Your task to perform on an android device: Clear the shopping cart on newegg. Search for "sony triple a" on newegg, select the first entry, and add it to the cart. Image 0: 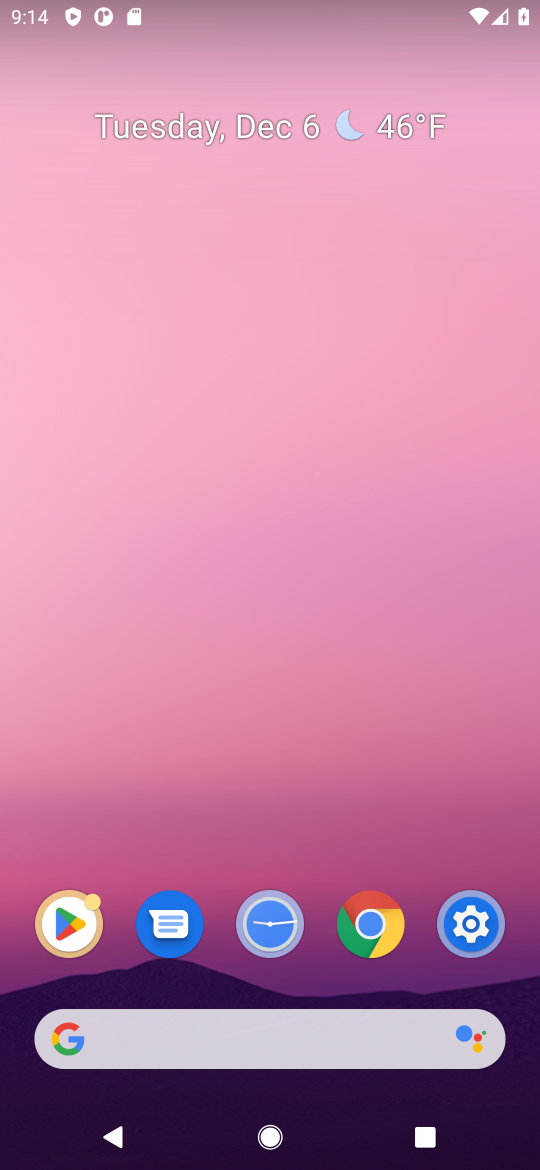
Step 0: click (223, 1042)
Your task to perform on an android device: Clear the shopping cart on newegg. Search for "sony triple a" on newegg, select the first entry, and add it to the cart. Image 1: 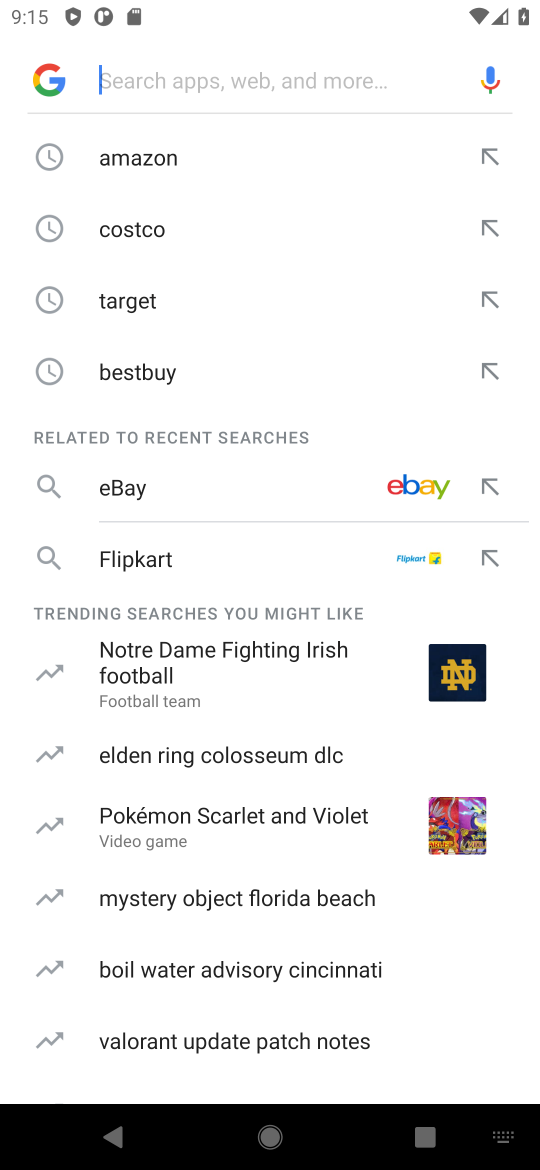
Step 1: type "newegg"
Your task to perform on an android device: Clear the shopping cart on newegg. Search for "sony triple a" on newegg, select the first entry, and add it to the cart. Image 2: 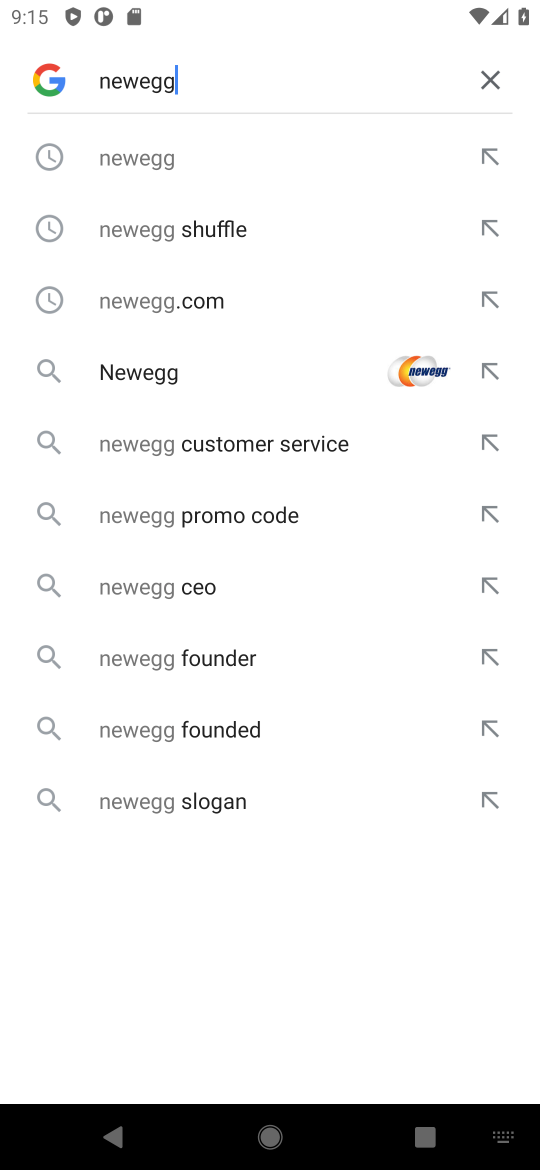
Step 2: click (191, 165)
Your task to perform on an android device: Clear the shopping cart on newegg. Search for "sony triple a" on newegg, select the first entry, and add it to the cart. Image 3: 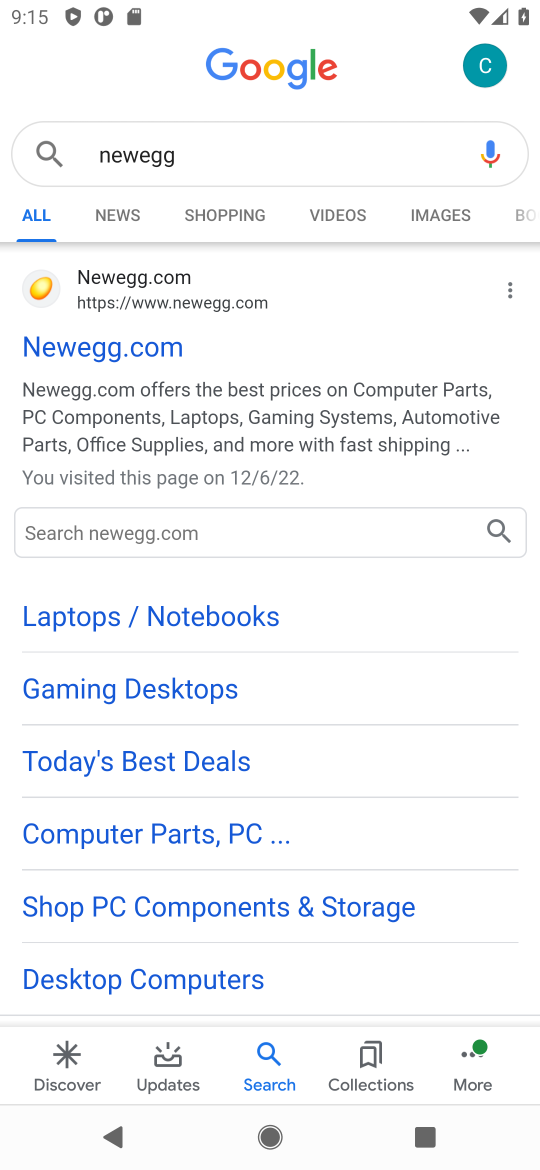
Step 3: click (64, 361)
Your task to perform on an android device: Clear the shopping cart on newegg. Search for "sony triple a" on newegg, select the first entry, and add it to the cart. Image 4: 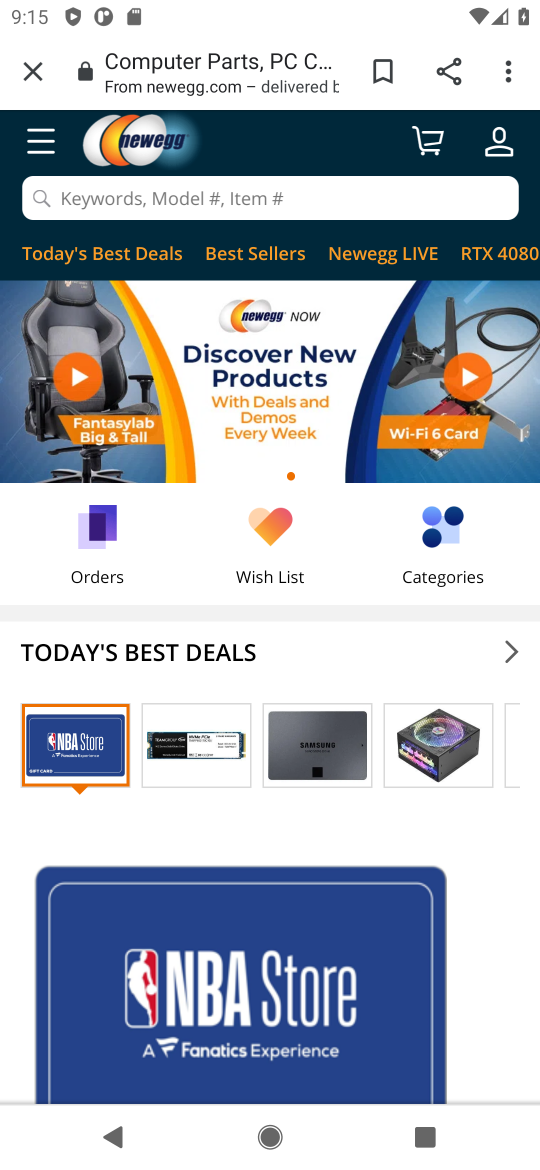
Step 4: click (178, 185)
Your task to perform on an android device: Clear the shopping cart on newegg. Search for "sony triple a" on newegg, select the first entry, and add it to the cart. Image 5: 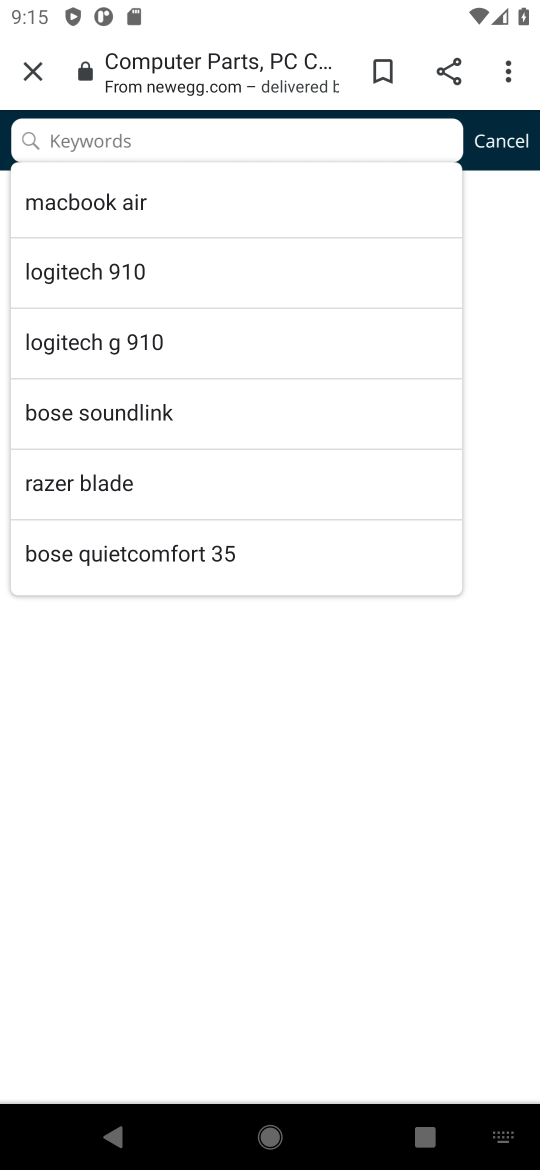
Step 5: type "sony triple a"
Your task to perform on an android device: Clear the shopping cart on newegg. Search for "sony triple a" on newegg, select the first entry, and add it to the cart. Image 6: 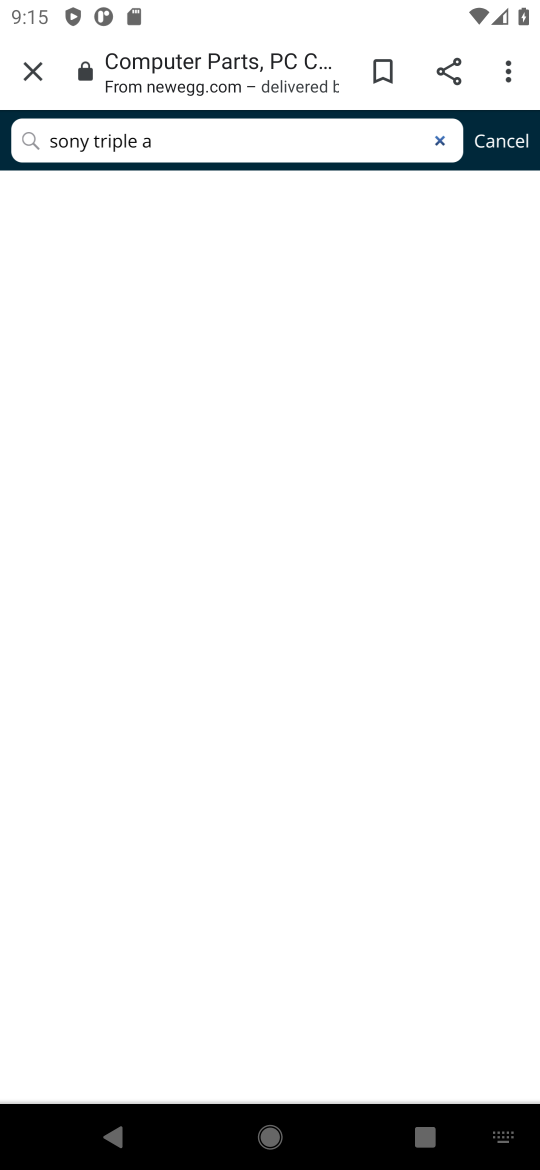
Step 6: task complete